Your task to perform on an android device: Find coffee shops on Maps Image 0: 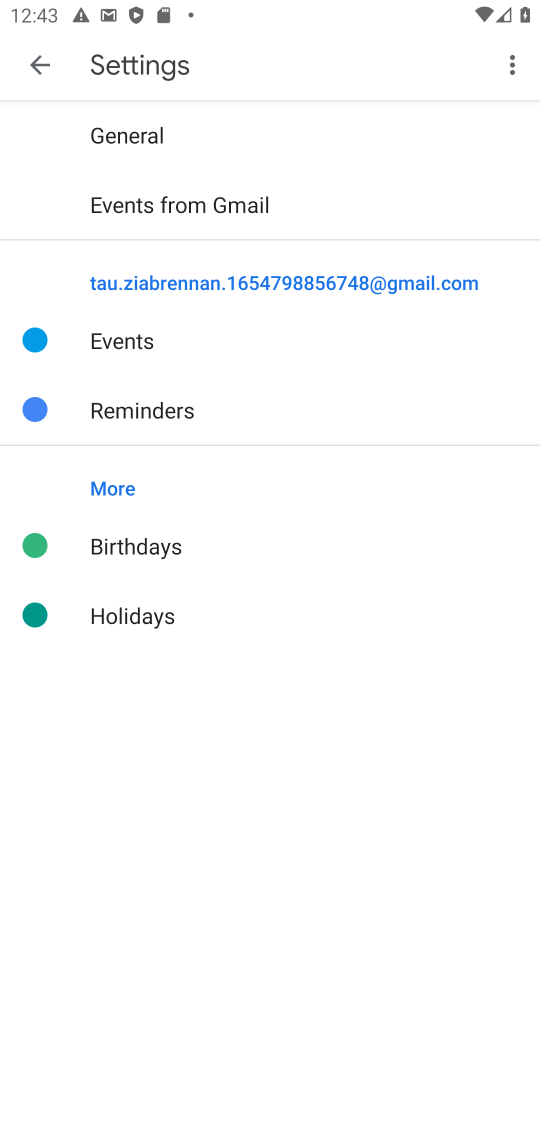
Step 0: press home button
Your task to perform on an android device: Find coffee shops on Maps Image 1: 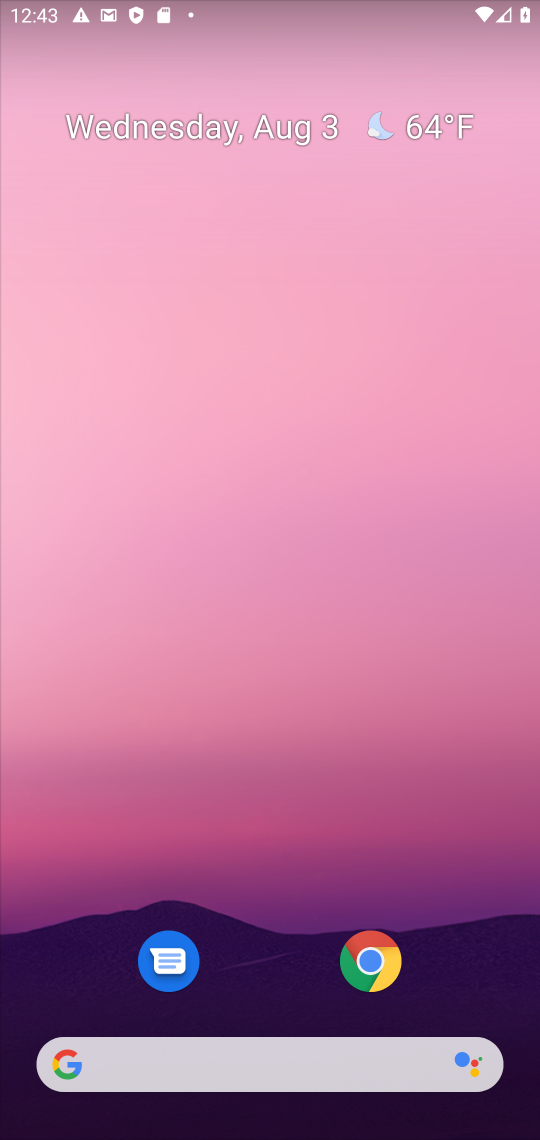
Step 1: drag from (279, 867) to (248, 60)
Your task to perform on an android device: Find coffee shops on Maps Image 2: 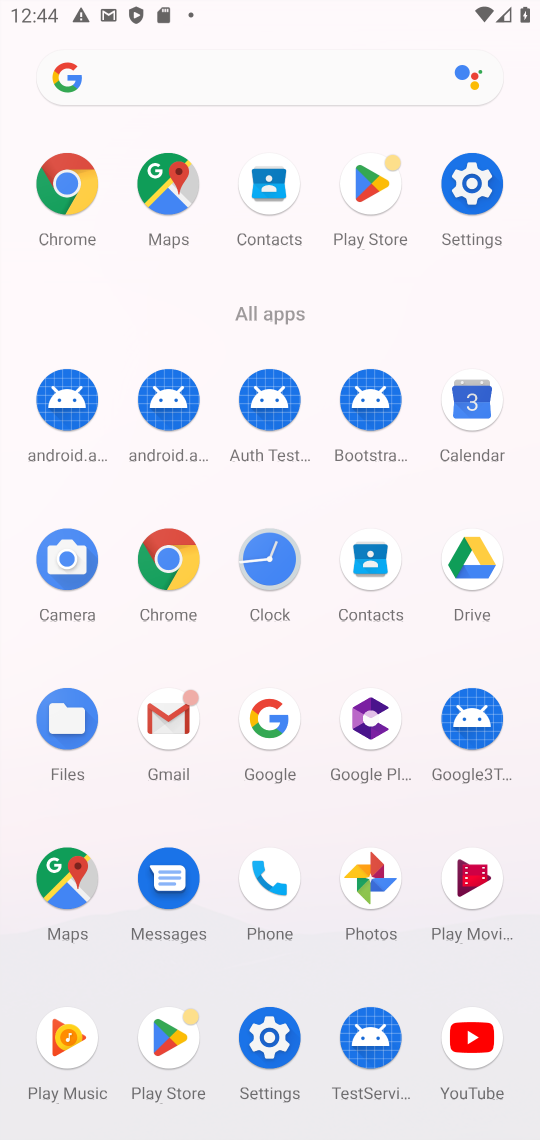
Step 2: click (170, 184)
Your task to perform on an android device: Find coffee shops on Maps Image 3: 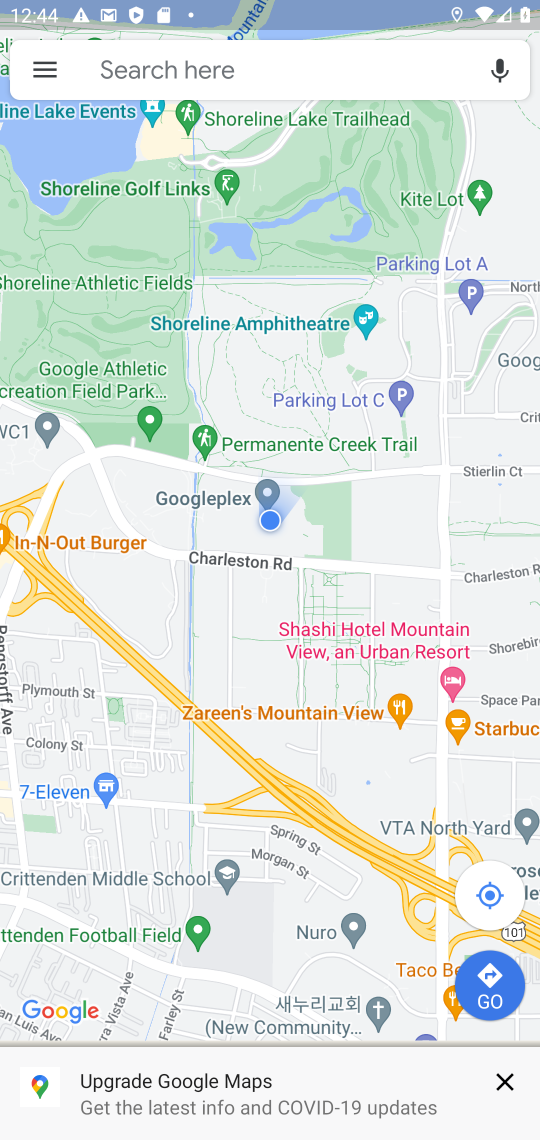
Step 3: click (83, 71)
Your task to perform on an android device: Find coffee shops on Maps Image 4: 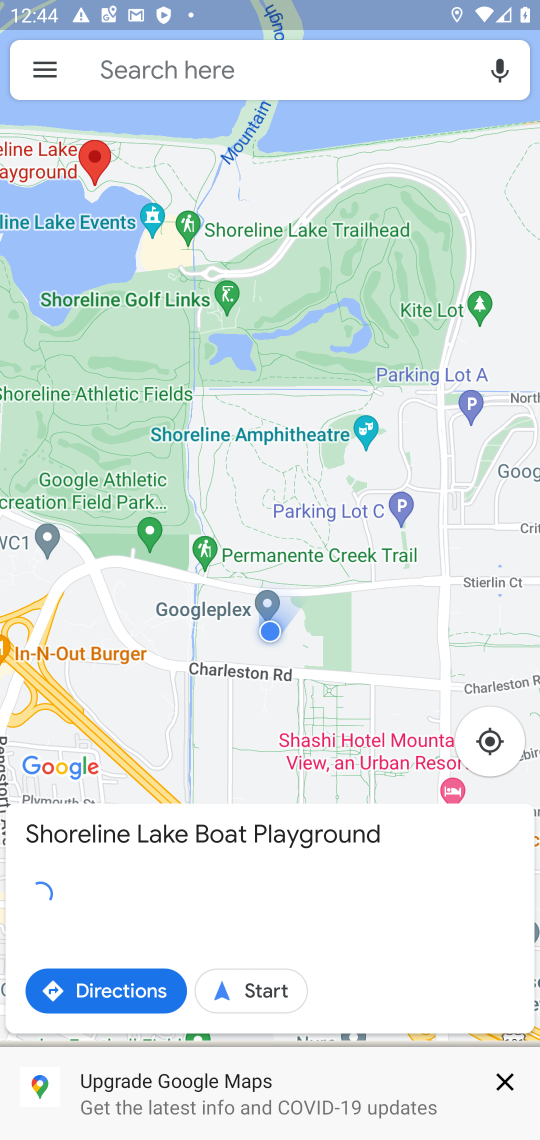
Step 4: click (180, 80)
Your task to perform on an android device: Find coffee shops on Maps Image 5: 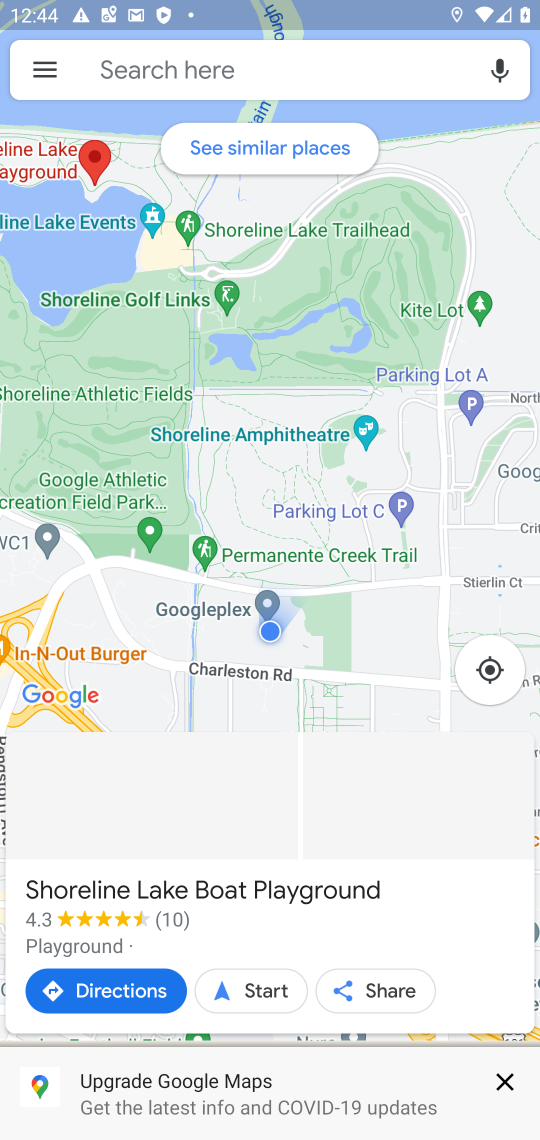
Step 5: click (178, 66)
Your task to perform on an android device: Find coffee shops on Maps Image 6: 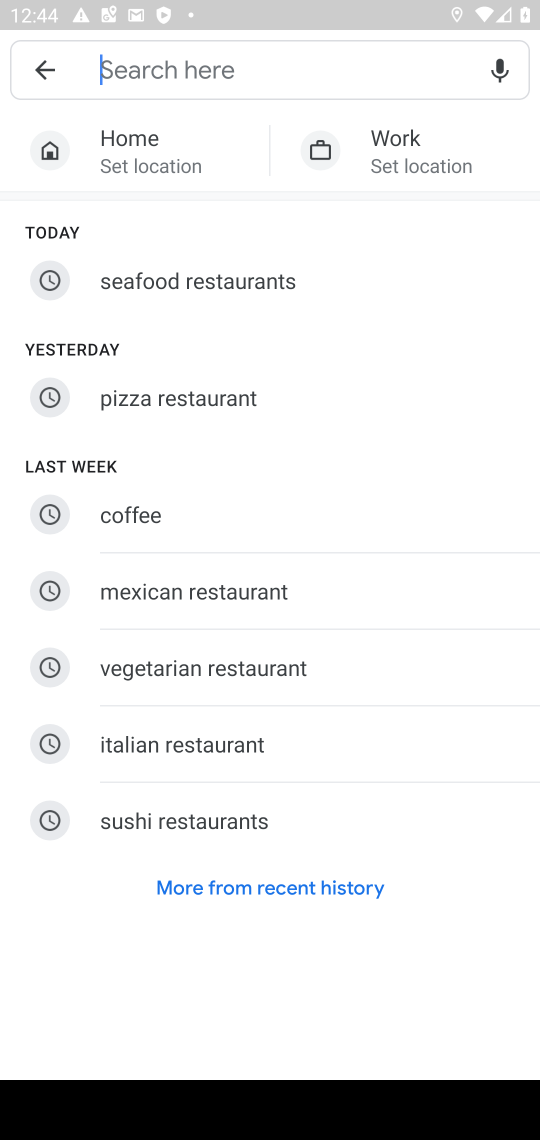
Step 6: type "coffee shops"
Your task to perform on an android device: Find coffee shops on Maps Image 7: 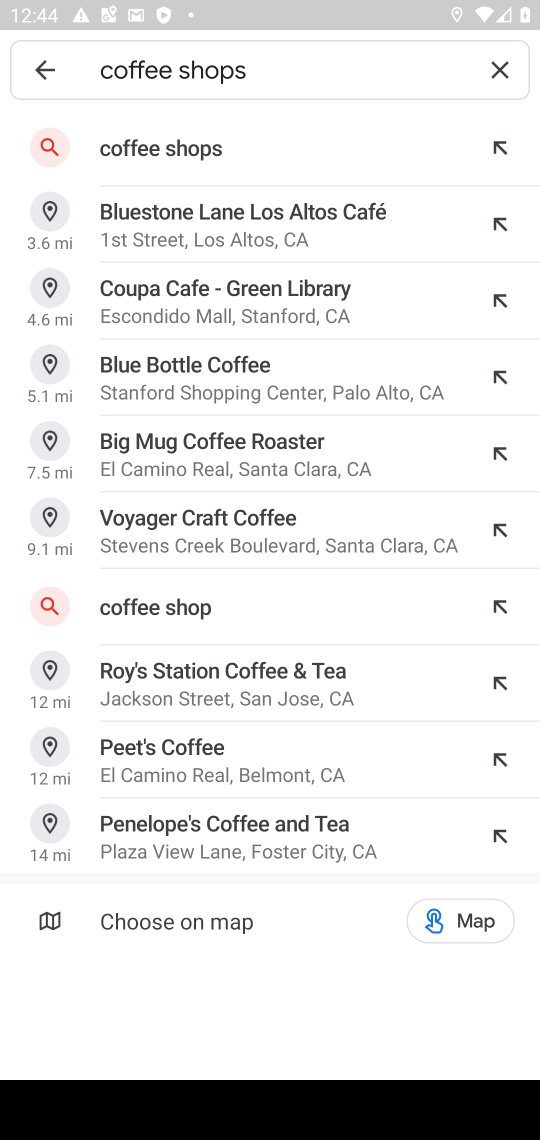
Step 7: click (164, 156)
Your task to perform on an android device: Find coffee shops on Maps Image 8: 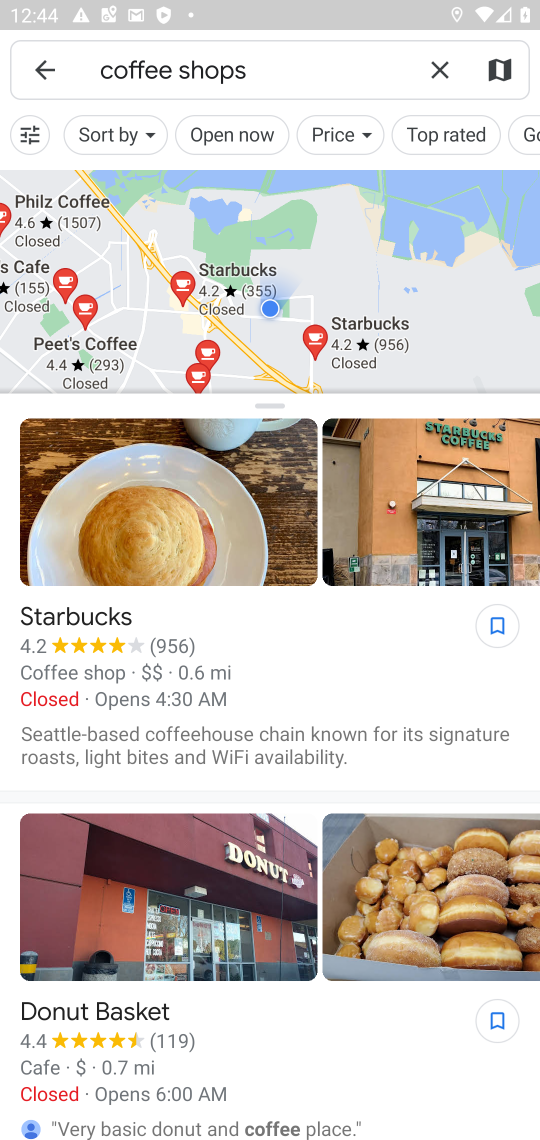
Step 8: task complete